Your task to perform on an android device: Open Android settings Image 0: 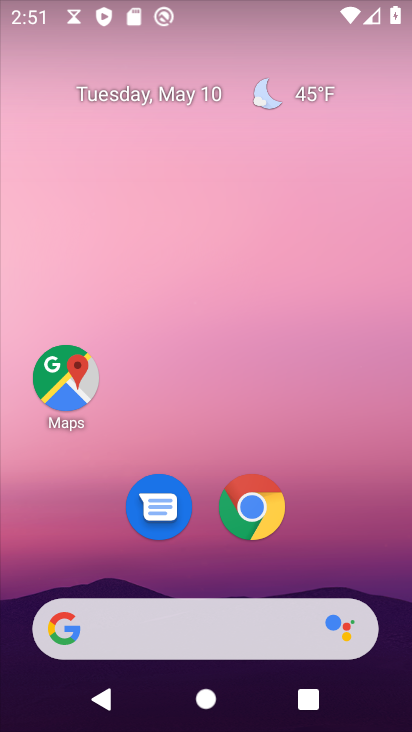
Step 0: drag from (322, 499) to (87, 63)
Your task to perform on an android device: Open Android settings Image 1: 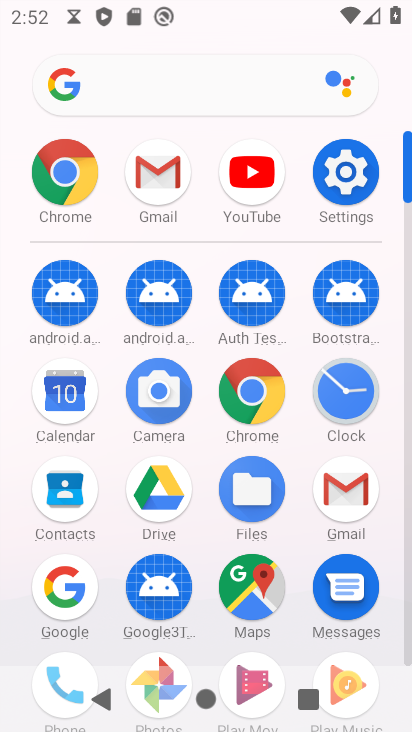
Step 1: click (368, 172)
Your task to perform on an android device: Open Android settings Image 2: 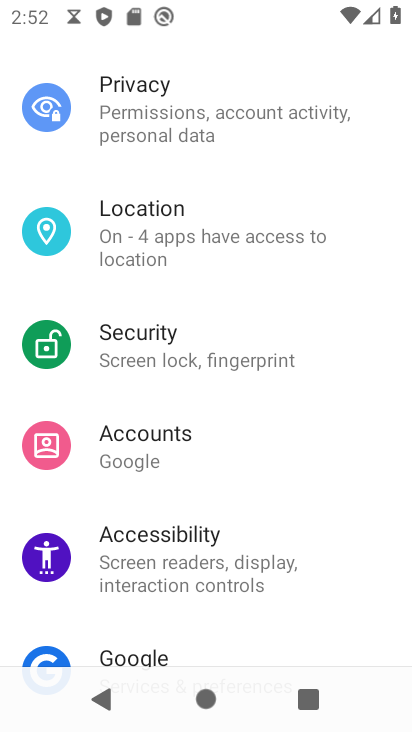
Step 2: drag from (164, 603) to (216, 107)
Your task to perform on an android device: Open Android settings Image 3: 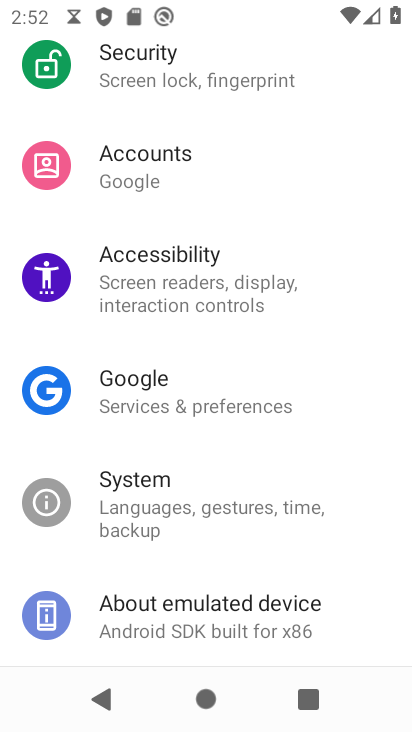
Step 3: click (184, 608)
Your task to perform on an android device: Open Android settings Image 4: 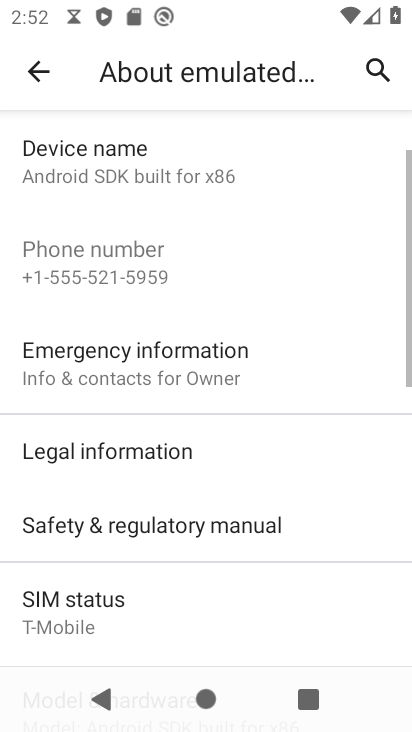
Step 4: drag from (184, 608) to (181, 194)
Your task to perform on an android device: Open Android settings Image 5: 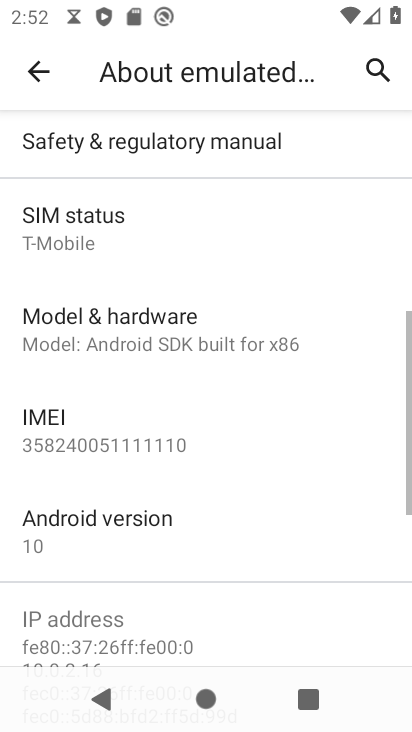
Step 5: click (89, 537)
Your task to perform on an android device: Open Android settings Image 6: 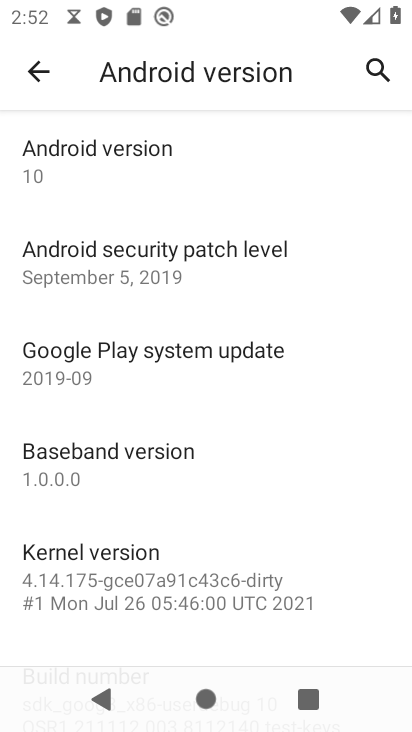
Step 6: task complete